Your task to perform on an android device: change the clock display to analog Image 0: 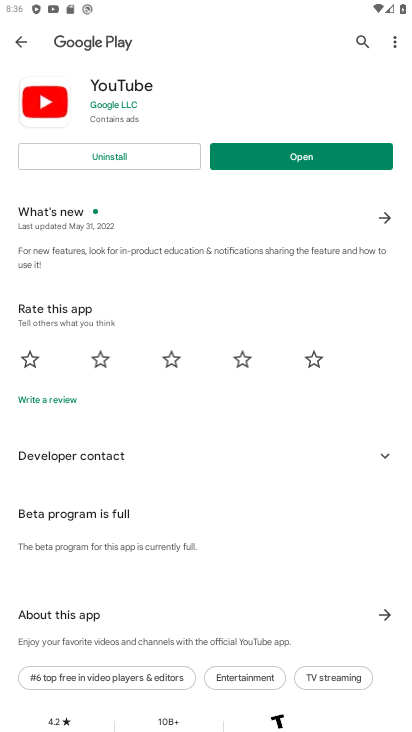
Step 0: press back button
Your task to perform on an android device: change the clock display to analog Image 1: 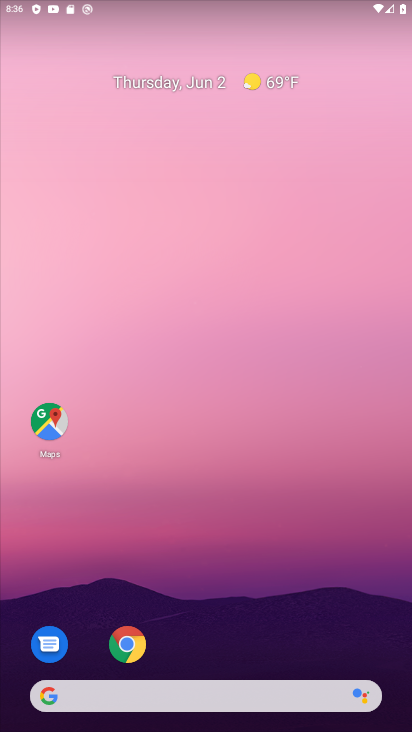
Step 1: drag from (285, 582) to (165, 3)
Your task to perform on an android device: change the clock display to analog Image 2: 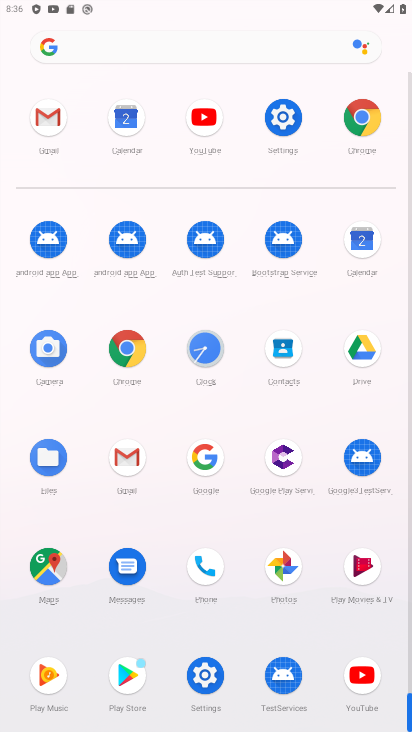
Step 2: click (202, 343)
Your task to perform on an android device: change the clock display to analog Image 3: 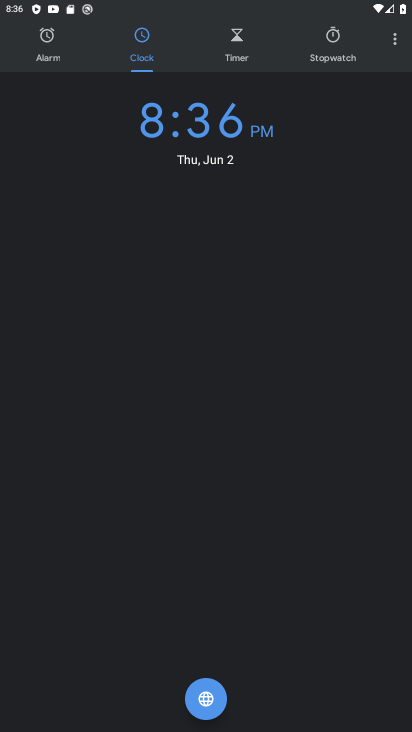
Step 3: drag from (393, 41) to (357, 75)
Your task to perform on an android device: change the clock display to analog Image 4: 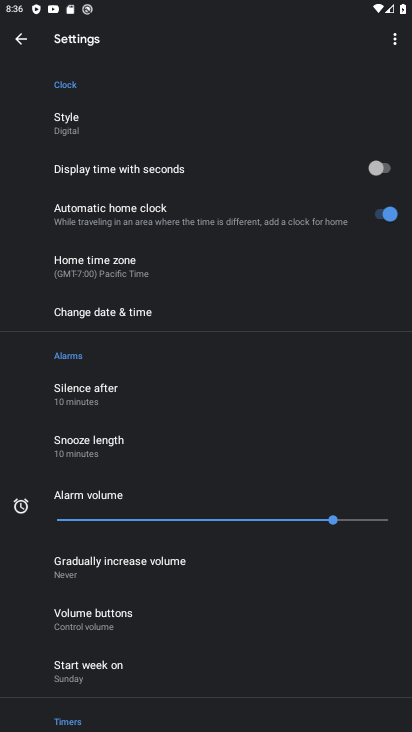
Step 4: click (112, 123)
Your task to perform on an android device: change the clock display to analog Image 5: 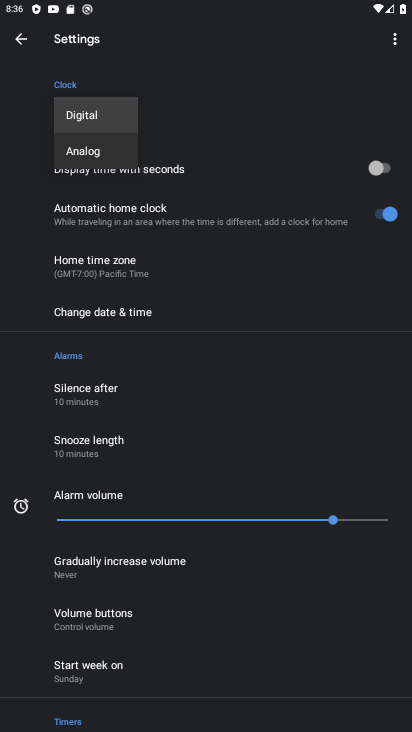
Step 5: click (79, 152)
Your task to perform on an android device: change the clock display to analog Image 6: 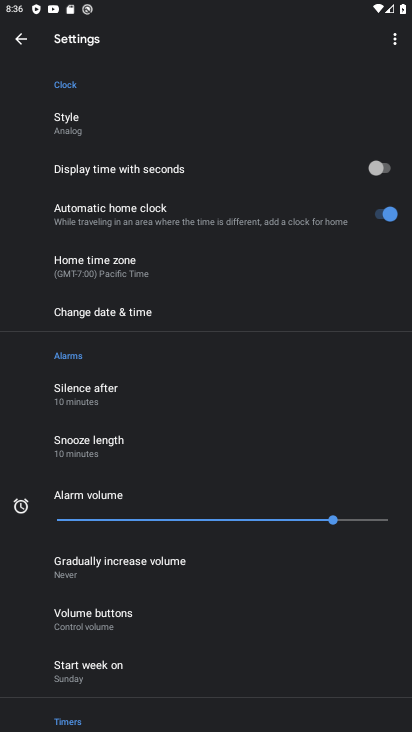
Step 6: task complete